Your task to perform on an android device: Open the phone app and click the voicemail tab. Image 0: 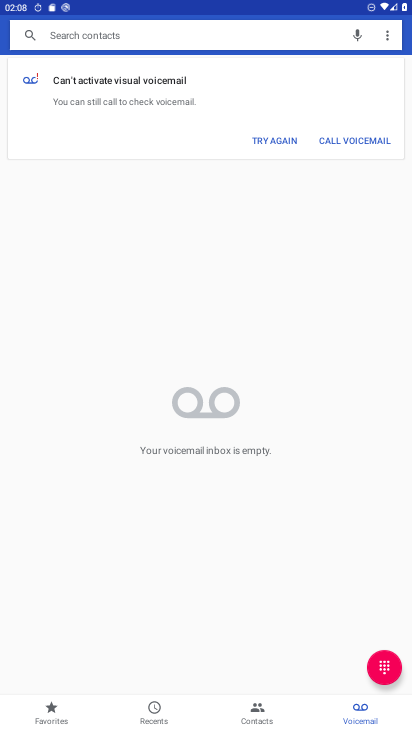
Step 0: press home button
Your task to perform on an android device: Open the phone app and click the voicemail tab. Image 1: 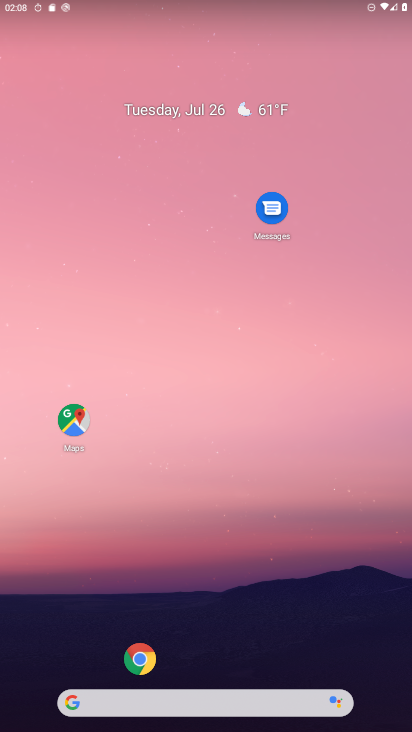
Step 1: drag from (194, 407) to (255, 245)
Your task to perform on an android device: Open the phone app and click the voicemail tab. Image 2: 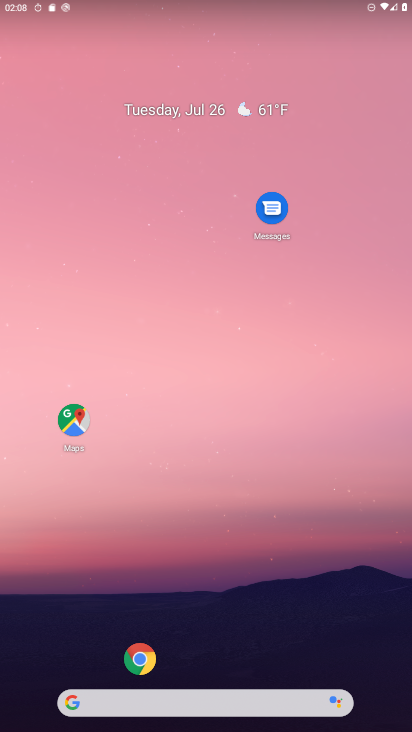
Step 2: drag from (46, 678) to (235, 149)
Your task to perform on an android device: Open the phone app and click the voicemail tab. Image 3: 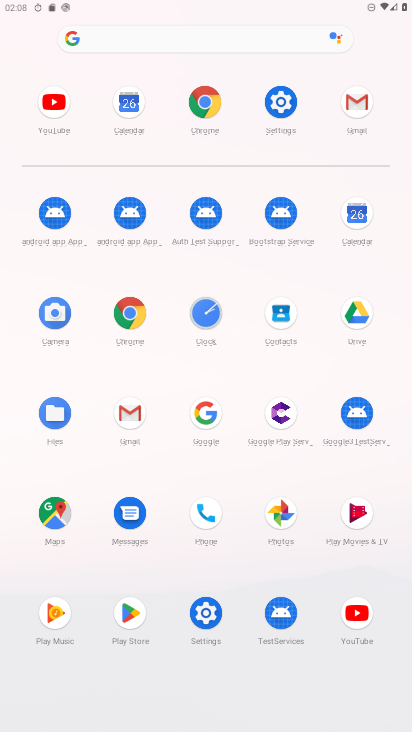
Step 3: click (202, 512)
Your task to perform on an android device: Open the phone app and click the voicemail tab. Image 4: 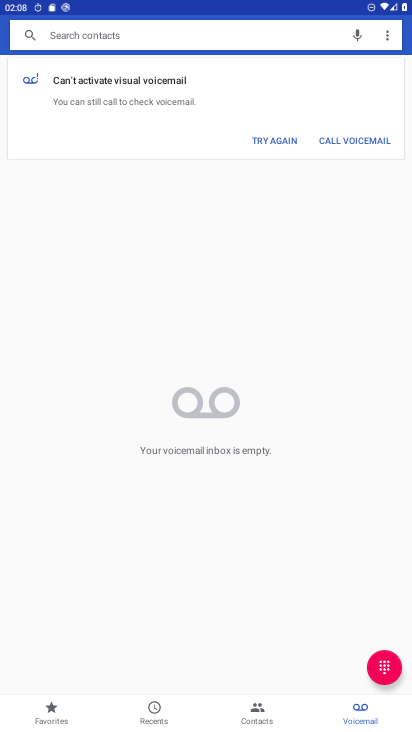
Step 4: click (346, 717)
Your task to perform on an android device: Open the phone app and click the voicemail tab. Image 5: 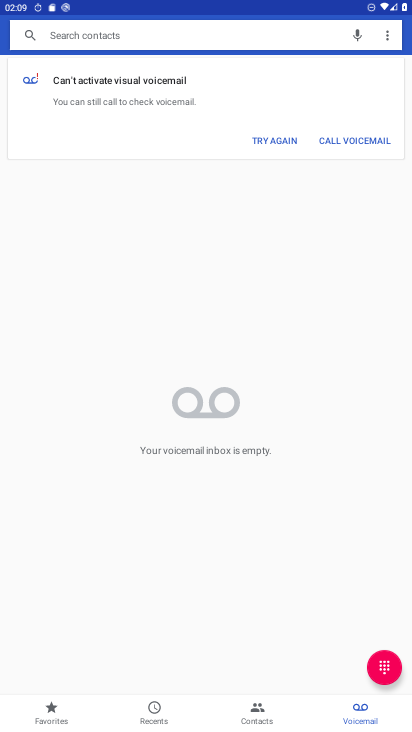
Step 5: task complete